Your task to perform on an android device: turn off picture-in-picture Image 0: 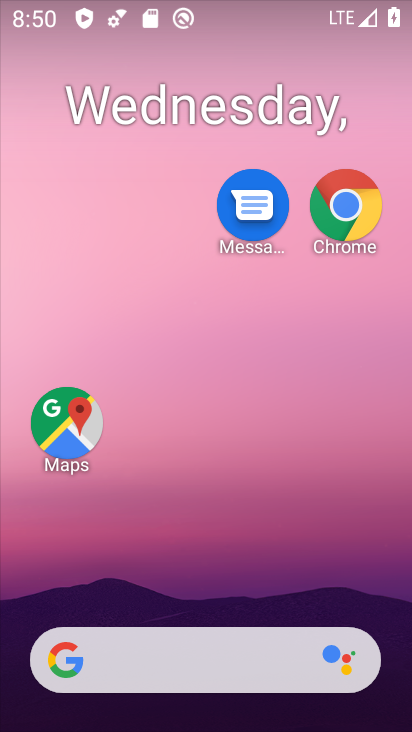
Step 0: drag from (193, 597) to (201, 50)
Your task to perform on an android device: turn off picture-in-picture Image 1: 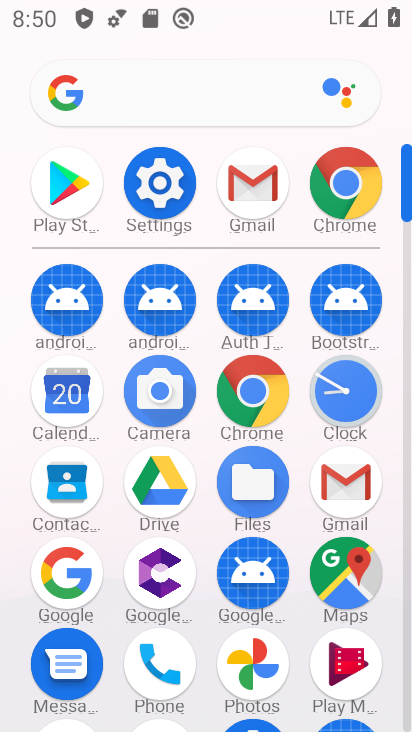
Step 1: click (155, 186)
Your task to perform on an android device: turn off picture-in-picture Image 2: 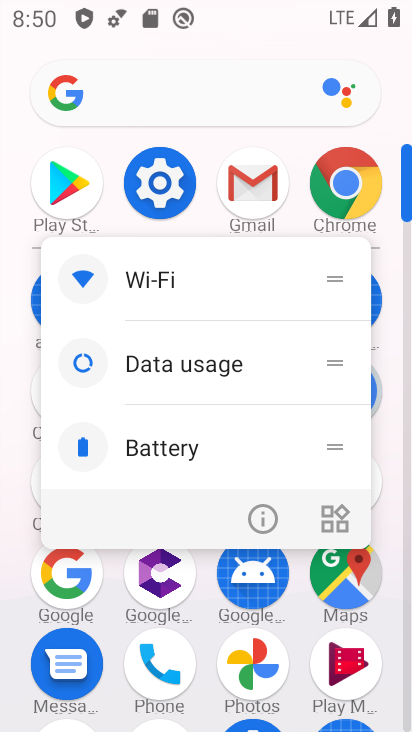
Step 2: click (257, 523)
Your task to perform on an android device: turn off picture-in-picture Image 3: 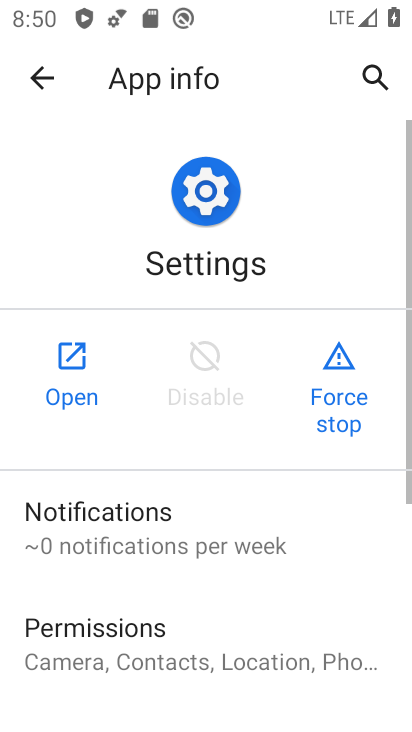
Step 3: click (75, 366)
Your task to perform on an android device: turn off picture-in-picture Image 4: 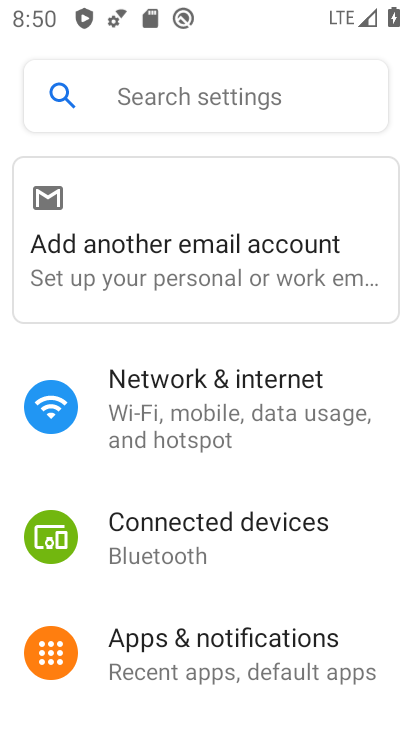
Step 4: drag from (223, 609) to (289, 171)
Your task to perform on an android device: turn off picture-in-picture Image 5: 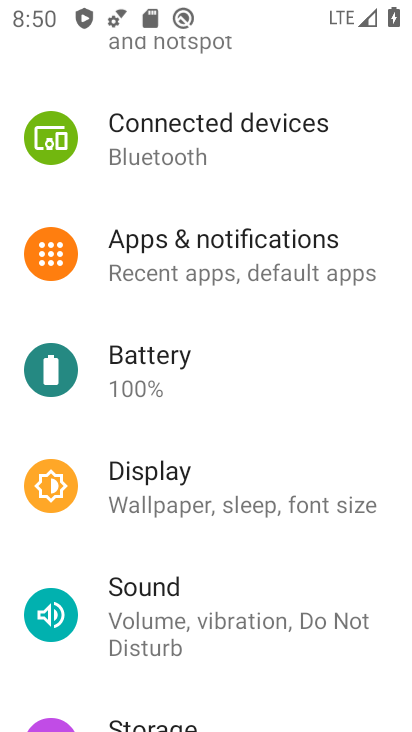
Step 5: click (213, 267)
Your task to perform on an android device: turn off picture-in-picture Image 6: 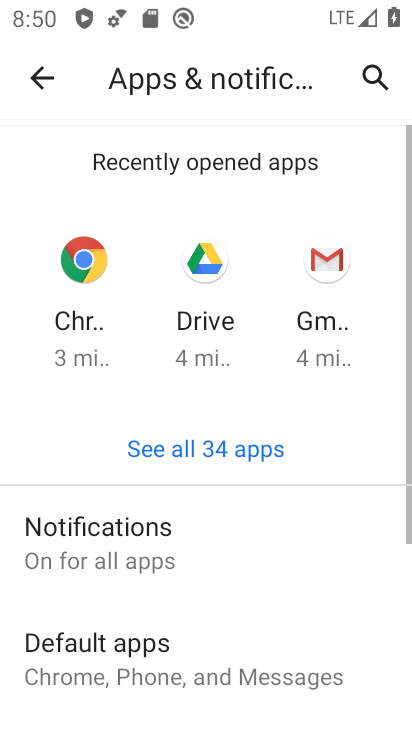
Step 6: drag from (244, 566) to (332, 156)
Your task to perform on an android device: turn off picture-in-picture Image 7: 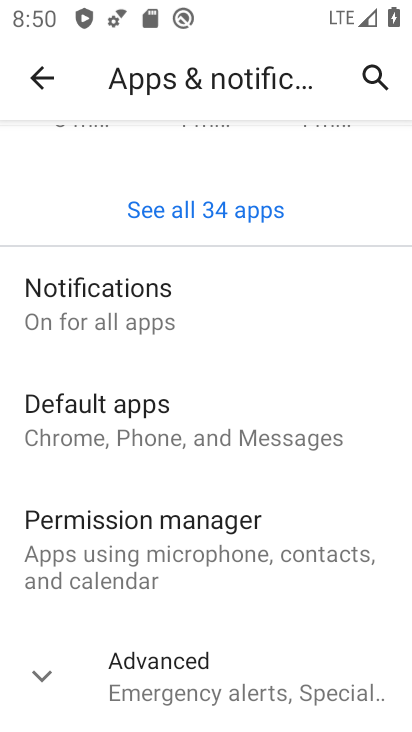
Step 7: click (176, 684)
Your task to perform on an android device: turn off picture-in-picture Image 8: 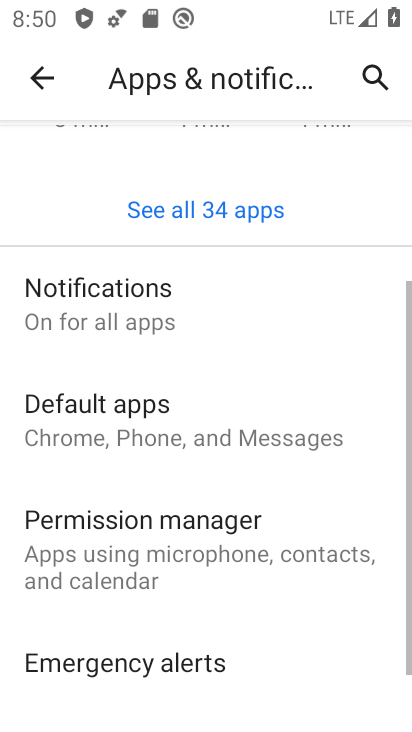
Step 8: drag from (176, 647) to (359, 99)
Your task to perform on an android device: turn off picture-in-picture Image 9: 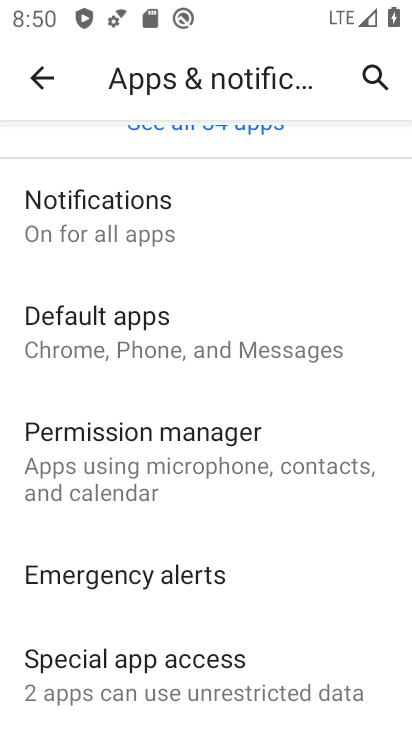
Step 9: click (177, 670)
Your task to perform on an android device: turn off picture-in-picture Image 10: 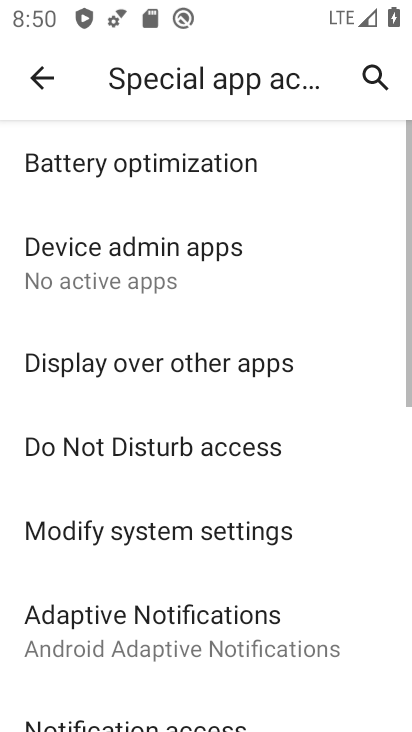
Step 10: drag from (172, 618) to (247, 121)
Your task to perform on an android device: turn off picture-in-picture Image 11: 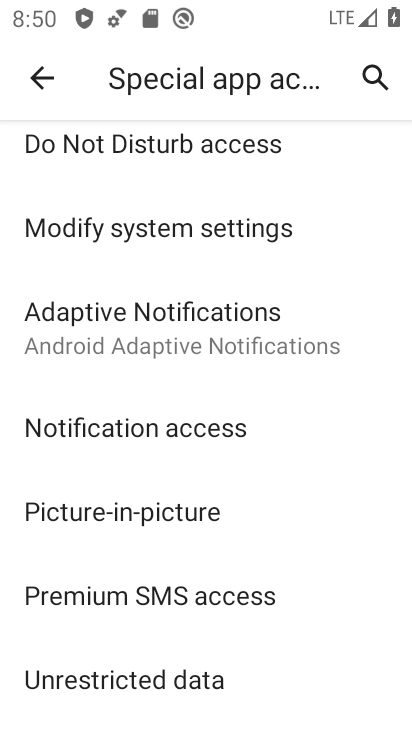
Step 11: click (133, 505)
Your task to perform on an android device: turn off picture-in-picture Image 12: 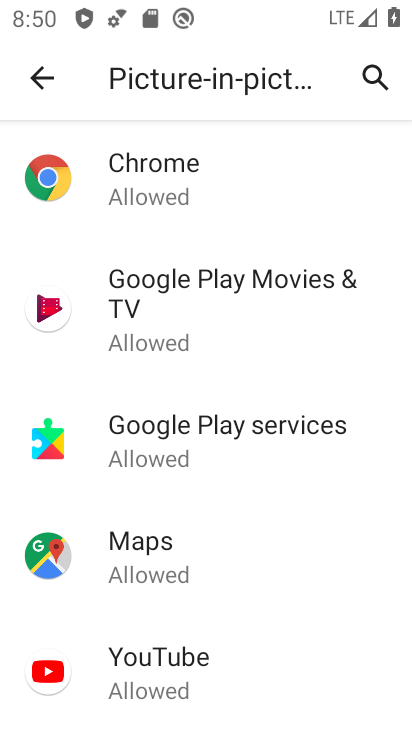
Step 12: task complete